Your task to perform on an android device: turn off sleep mode Image 0: 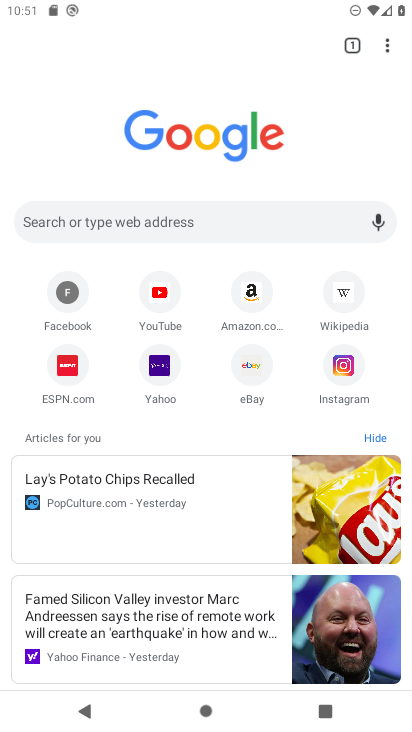
Step 0: press home button
Your task to perform on an android device: turn off sleep mode Image 1: 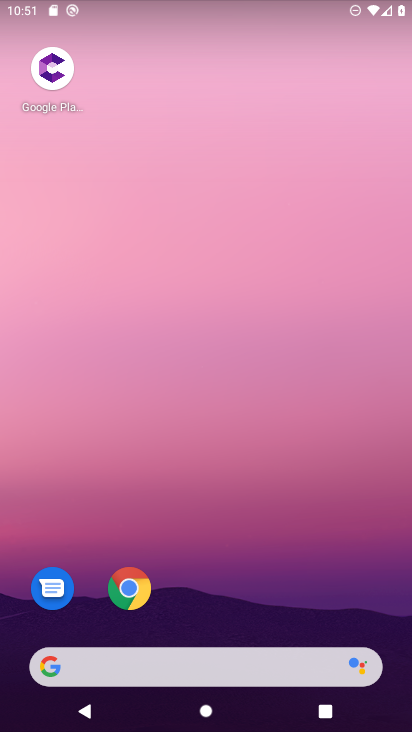
Step 1: drag from (249, 603) to (244, 128)
Your task to perform on an android device: turn off sleep mode Image 2: 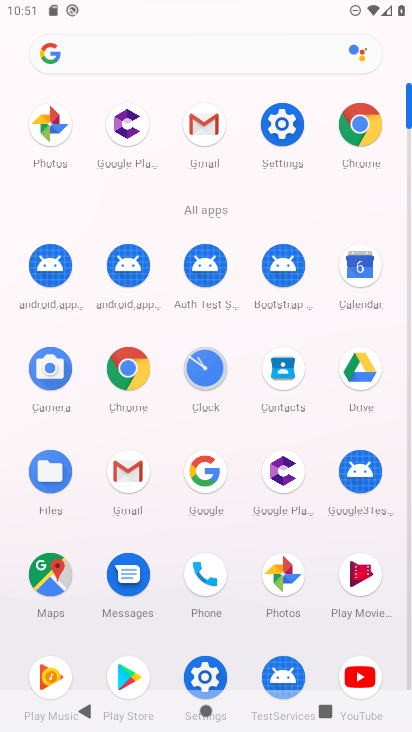
Step 2: click (288, 139)
Your task to perform on an android device: turn off sleep mode Image 3: 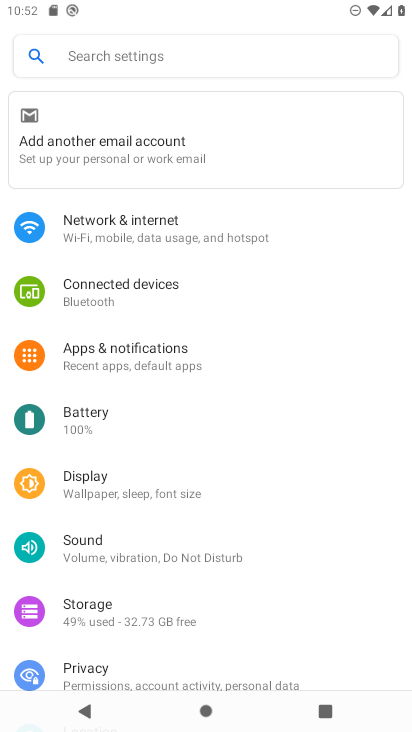
Step 3: click (237, 491)
Your task to perform on an android device: turn off sleep mode Image 4: 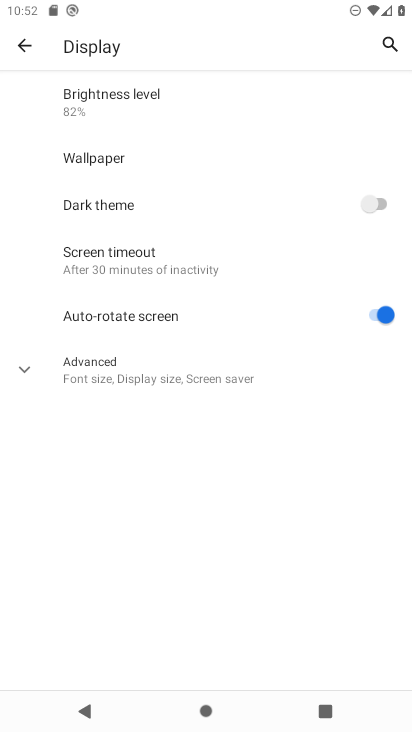
Step 4: click (246, 380)
Your task to perform on an android device: turn off sleep mode Image 5: 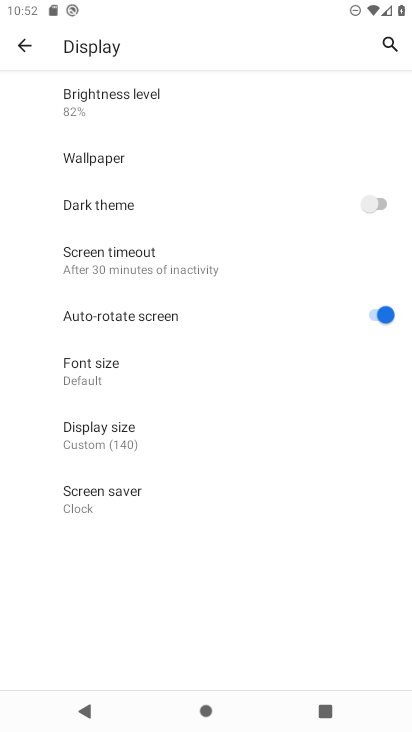
Step 5: task complete